Your task to perform on an android device: Open eBay Image 0: 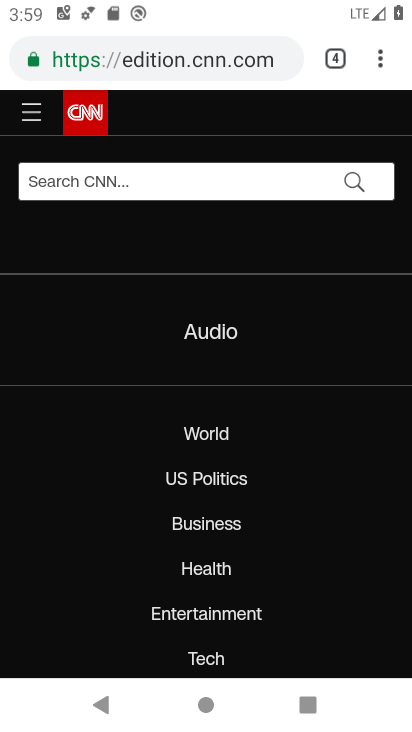
Step 0: press home button
Your task to perform on an android device: Open eBay Image 1: 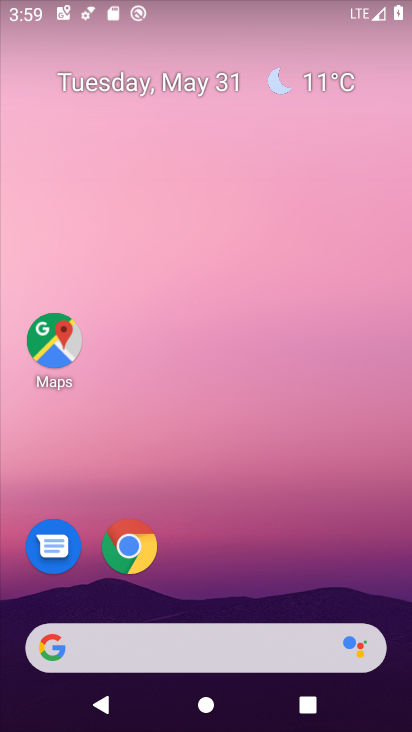
Step 1: drag from (282, 533) to (200, 37)
Your task to perform on an android device: Open eBay Image 2: 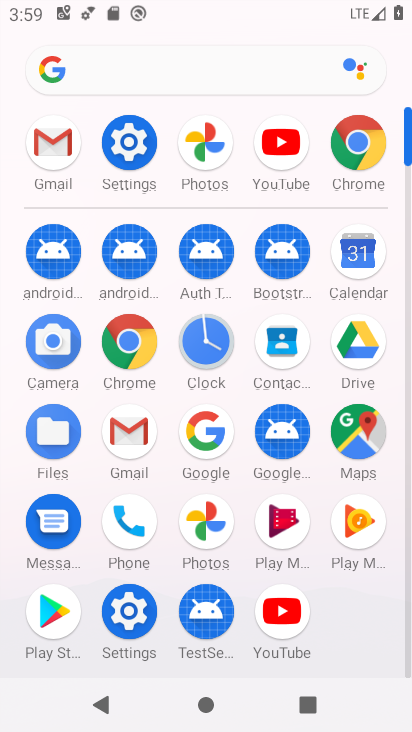
Step 2: click (343, 155)
Your task to perform on an android device: Open eBay Image 3: 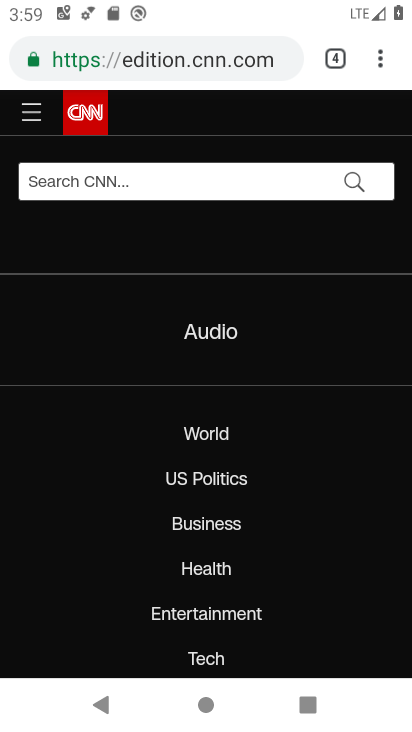
Step 3: click (320, 71)
Your task to perform on an android device: Open eBay Image 4: 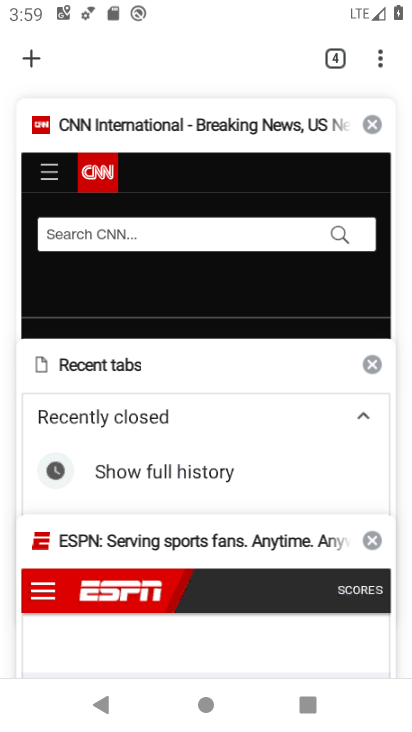
Step 4: drag from (220, 158) to (242, 516)
Your task to perform on an android device: Open eBay Image 5: 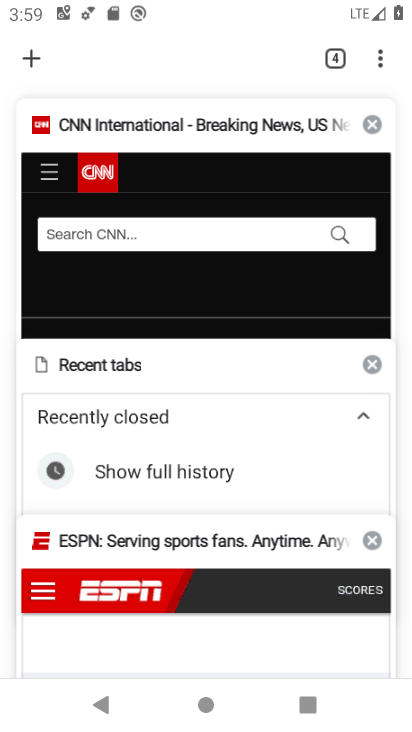
Step 5: drag from (233, 505) to (217, 159)
Your task to perform on an android device: Open eBay Image 6: 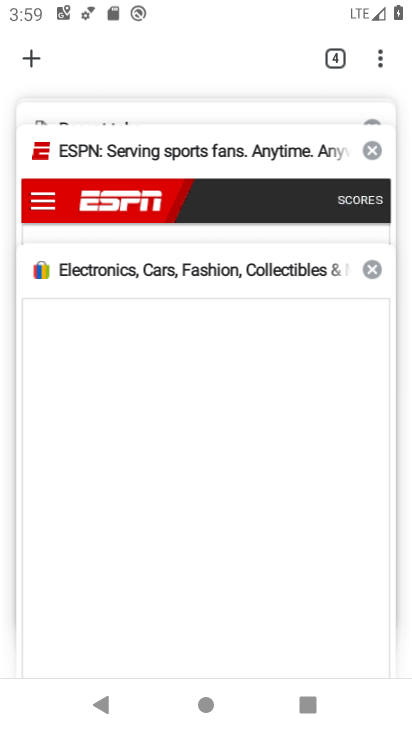
Step 6: click (145, 288)
Your task to perform on an android device: Open eBay Image 7: 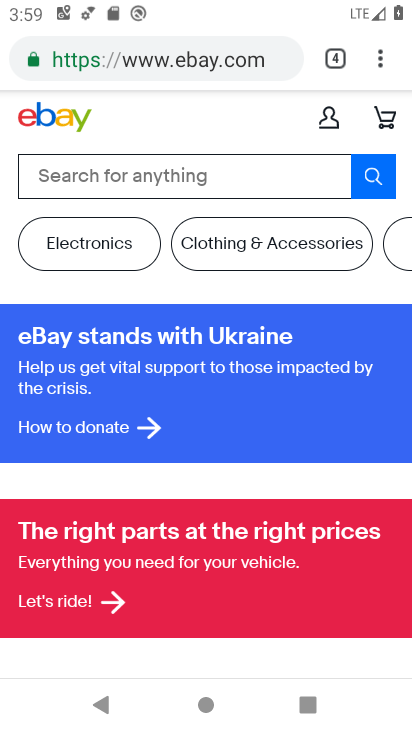
Step 7: task complete